Your task to perform on an android device: Open Reddit.com Image 0: 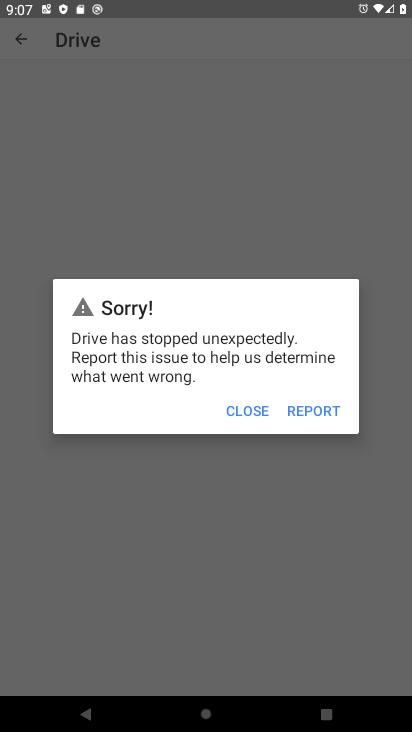
Step 0: press home button
Your task to perform on an android device: Open Reddit.com Image 1: 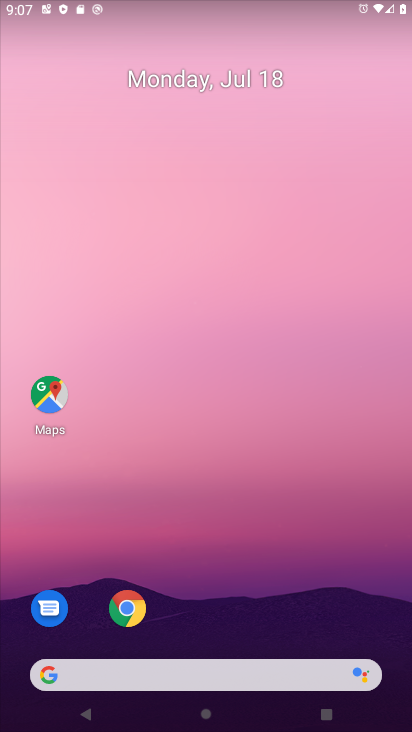
Step 1: click (240, 729)
Your task to perform on an android device: Open Reddit.com Image 2: 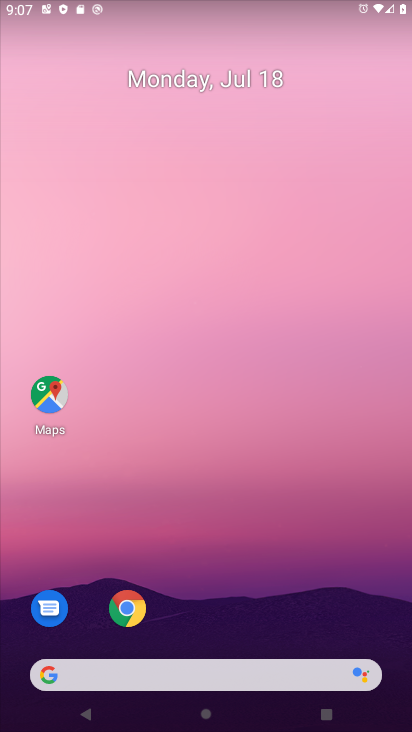
Step 2: click (207, 99)
Your task to perform on an android device: Open Reddit.com Image 3: 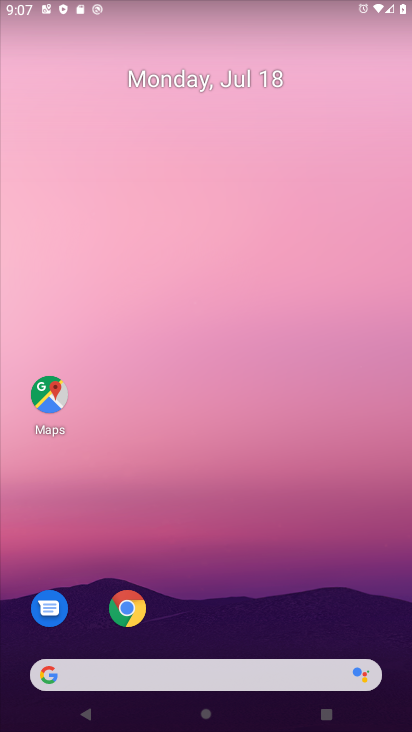
Step 3: click (130, 613)
Your task to perform on an android device: Open Reddit.com Image 4: 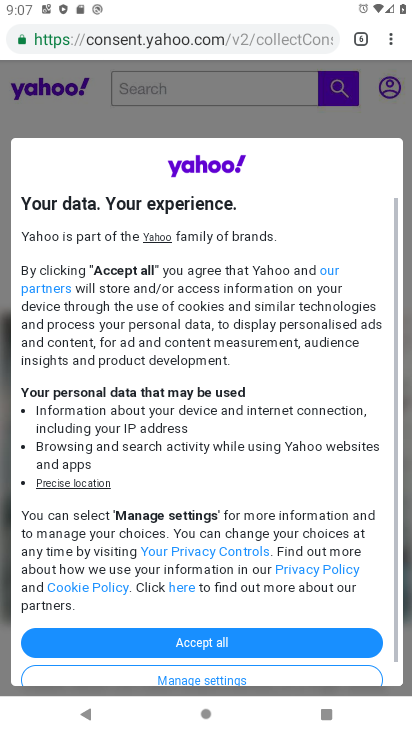
Step 4: click (390, 43)
Your task to perform on an android device: Open Reddit.com Image 5: 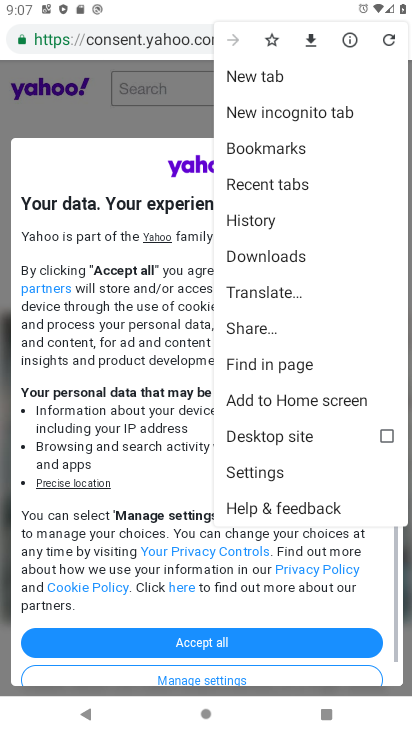
Step 5: click (252, 73)
Your task to perform on an android device: Open Reddit.com Image 6: 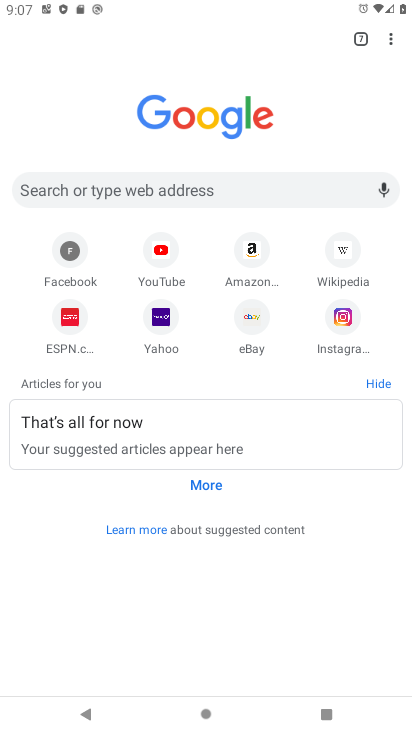
Step 6: click (203, 188)
Your task to perform on an android device: Open Reddit.com Image 7: 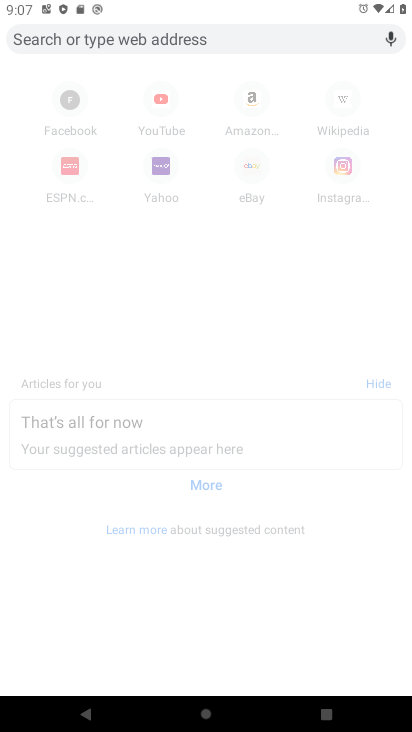
Step 7: type "Reddit.com"
Your task to perform on an android device: Open Reddit.com Image 8: 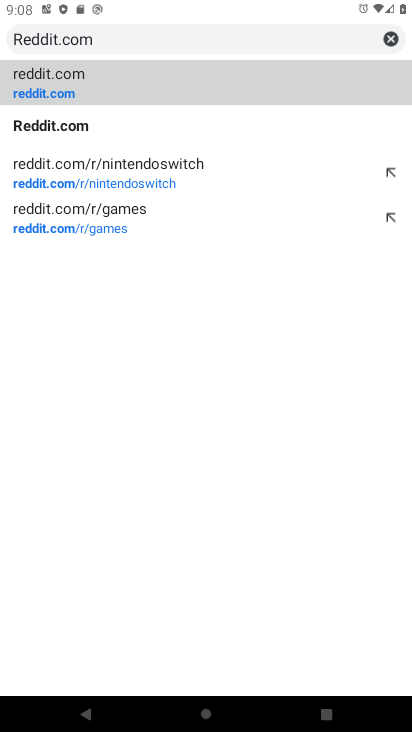
Step 8: click (45, 82)
Your task to perform on an android device: Open Reddit.com Image 9: 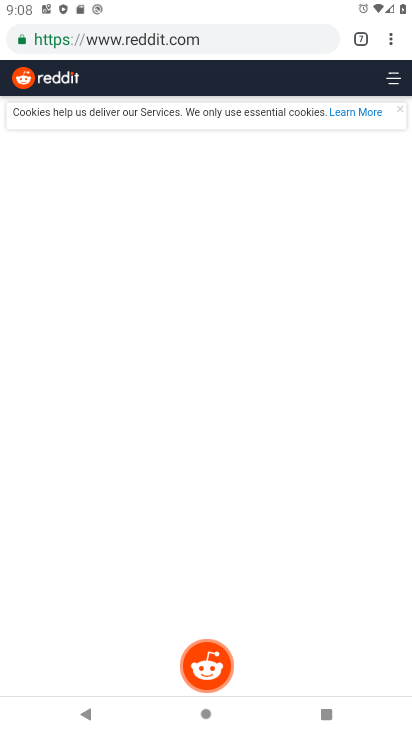
Step 9: task complete